Your task to perform on an android device: Check the weather Image 0: 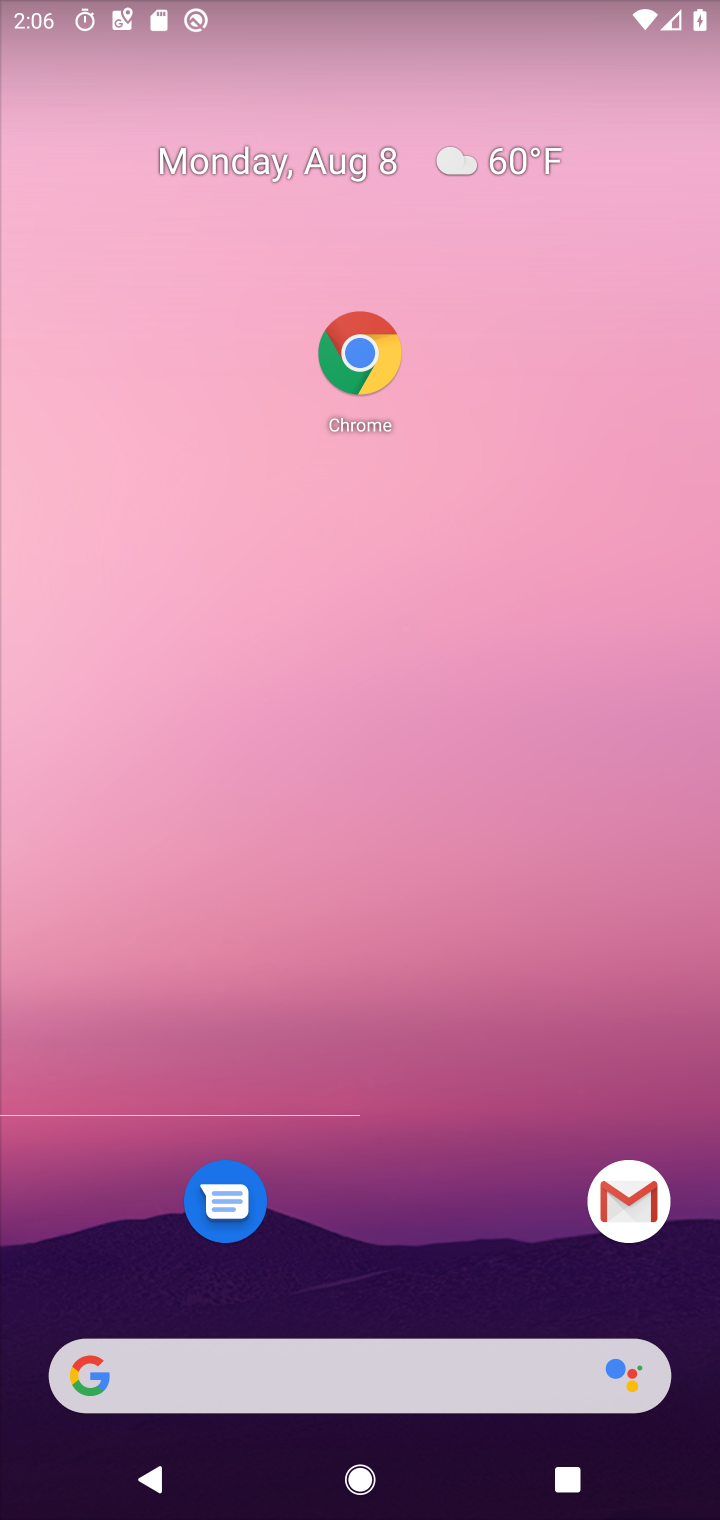
Step 0: press home button
Your task to perform on an android device: Check the weather Image 1: 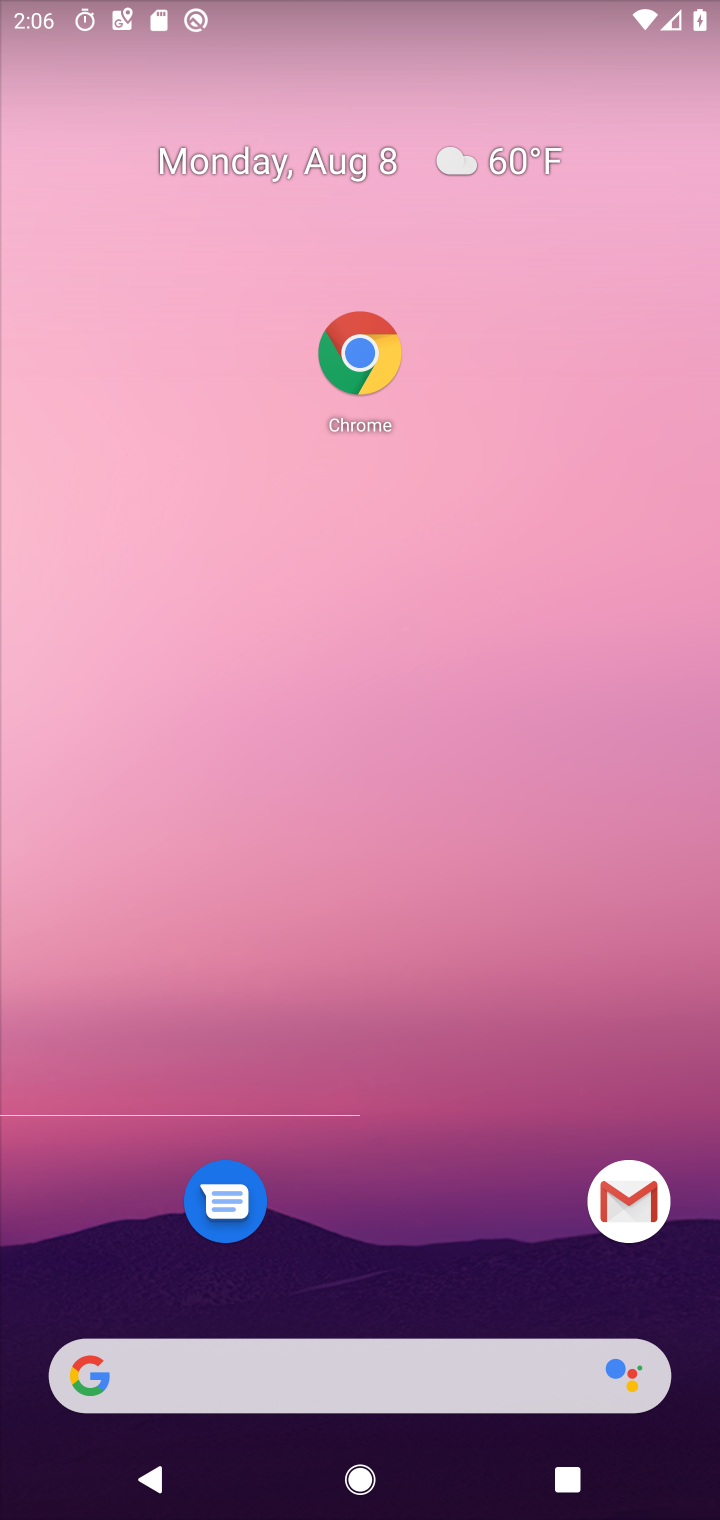
Step 1: click (451, 1389)
Your task to perform on an android device: Check the weather Image 2: 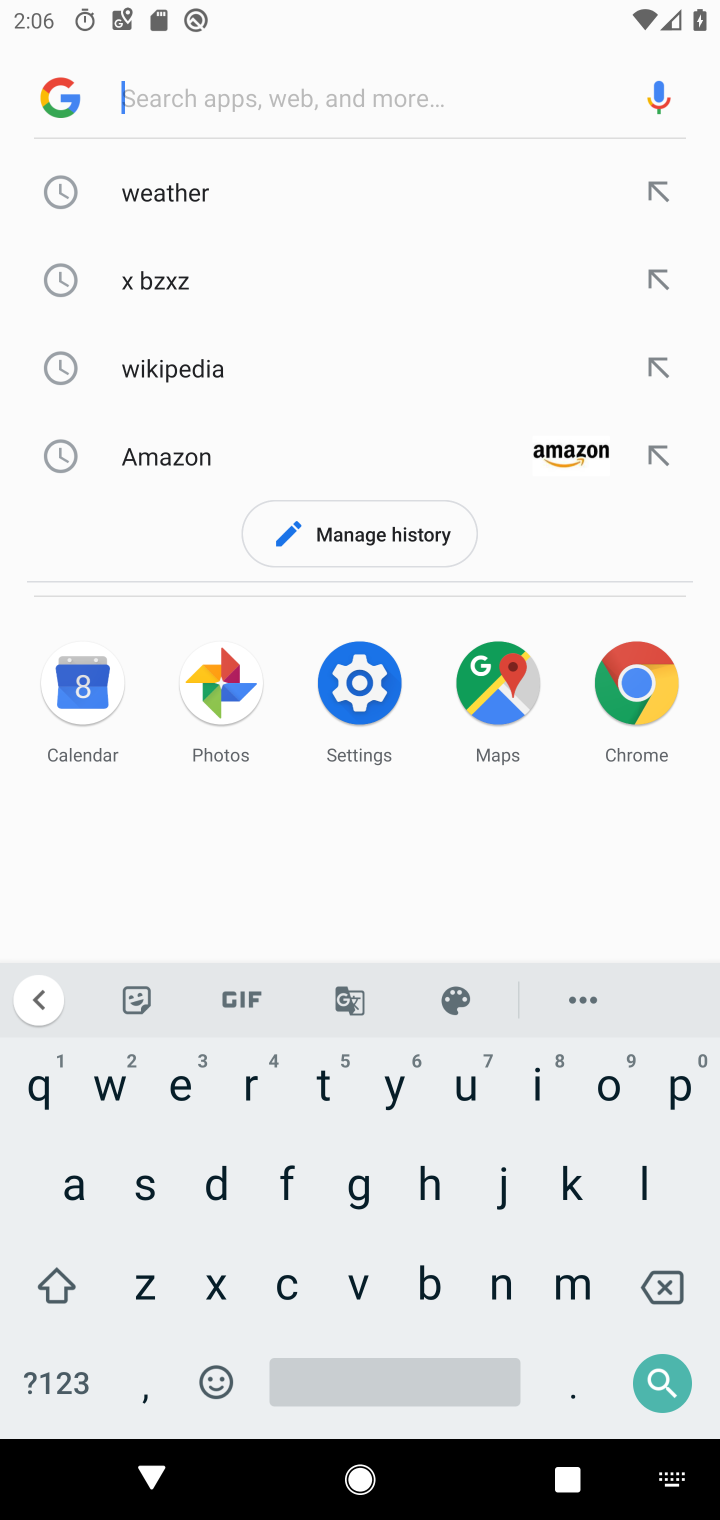
Step 2: click (201, 195)
Your task to perform on an android device: Check the weather Image 3: 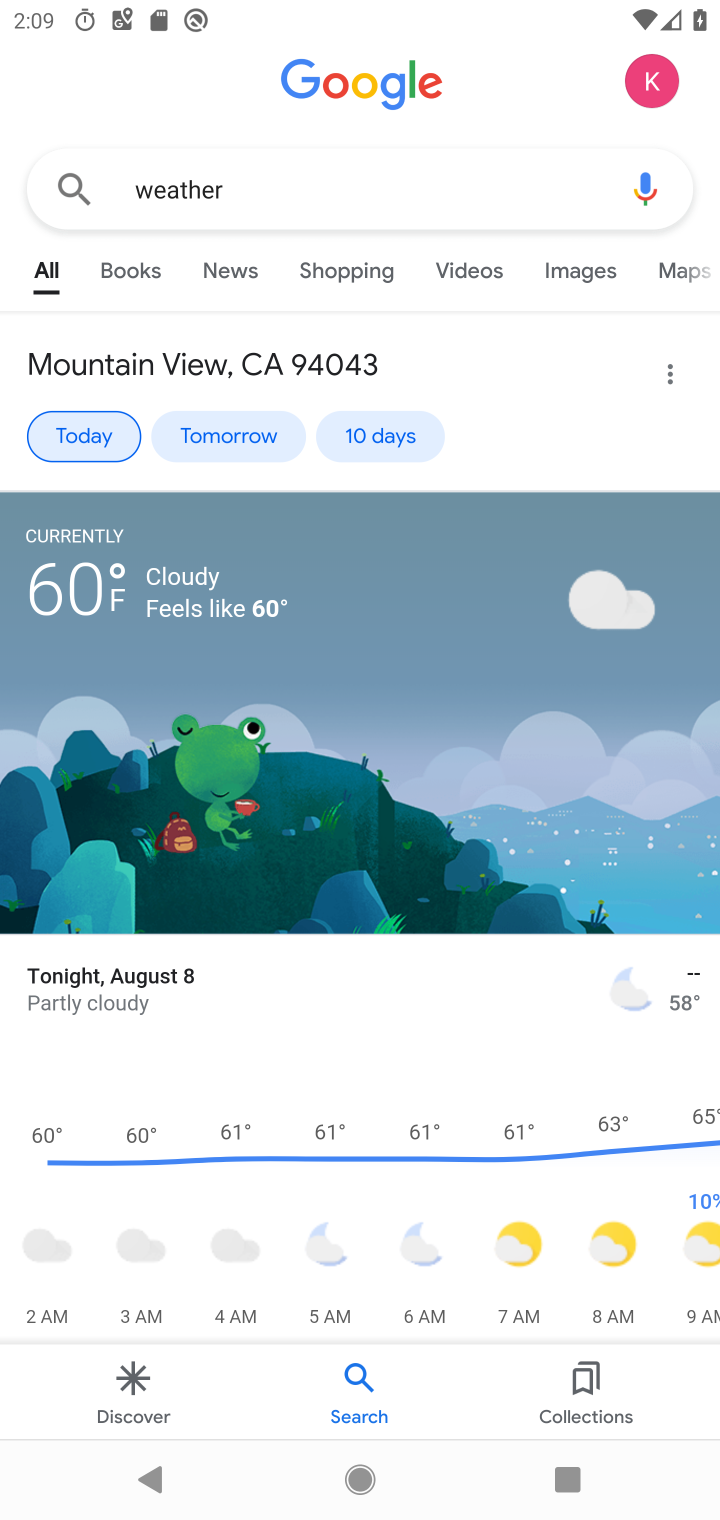
Step 3: task complete